Your task to perform on an android device: Check the weather Image 0: 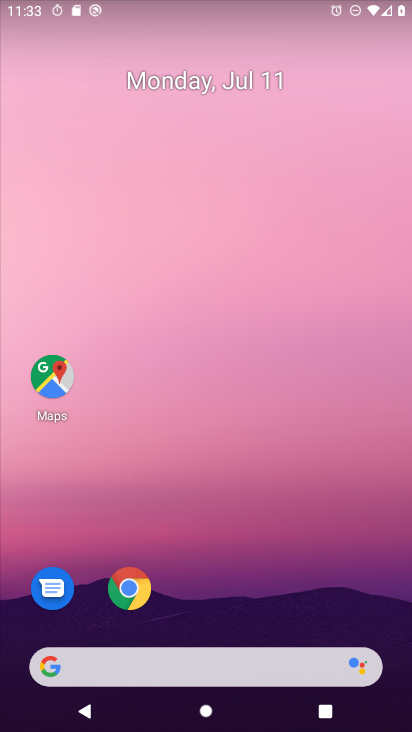
Step 0: click (202, 664)
Your task to perform on an android device: Check the weather Image 1: 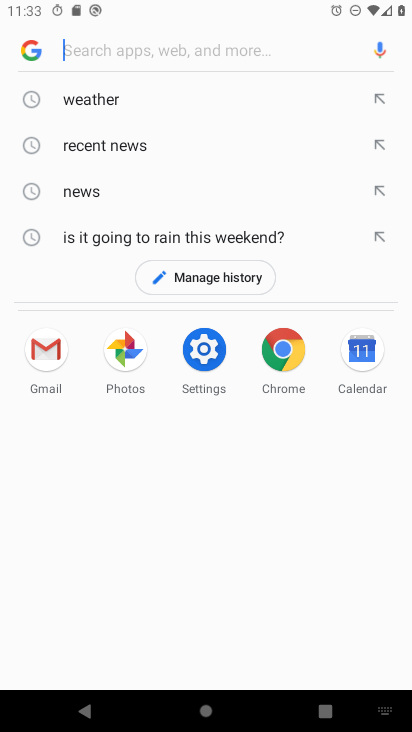
Step 1: click (101, 97)
Your task to perform on an android device: Check the weather Image 2: 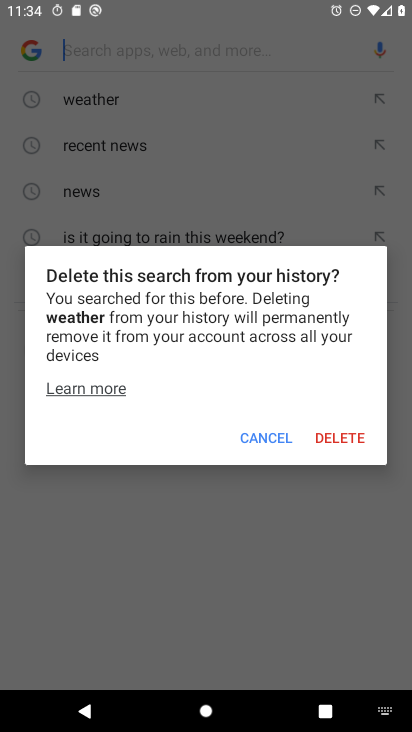
Step 2: click (264, 437)
Your task to perform on an android device: Check the weather Image 3: 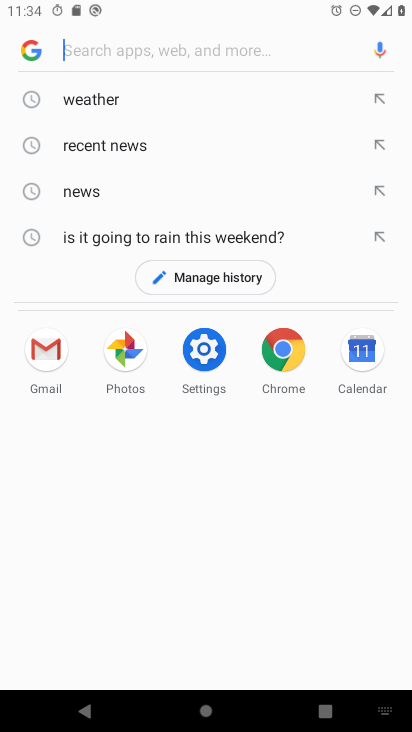
Step 3: click (112, 95)
Your task to perform on an android device: Check the weather Image 4: 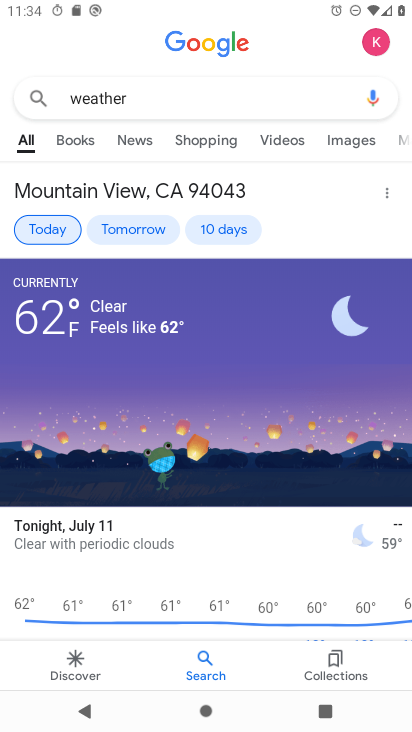
Step 4: task complete